Your task to perform on an android device: toggle show notifications on the lock screen Image 0: 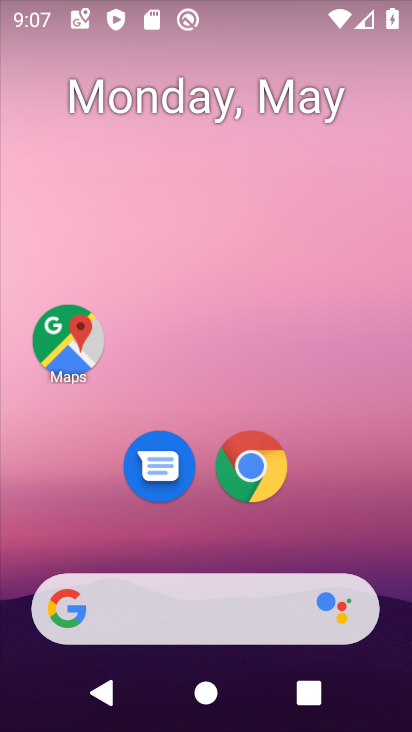
Step 0: drag from (248, 646) to (276, 114)
Your task to perform on an android device: toggle show notifications on the lock screen Image 1: 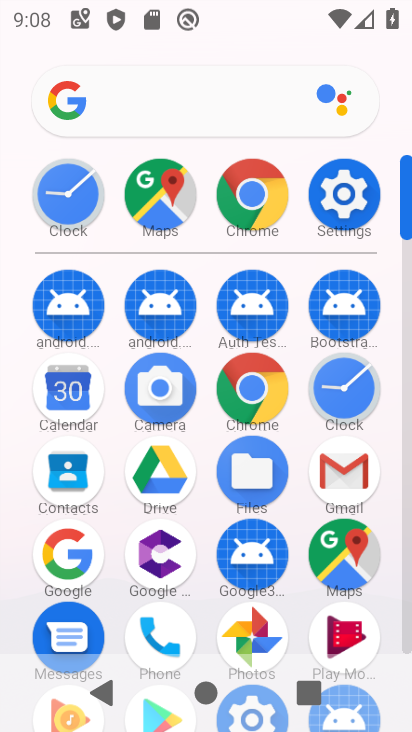
Step 1: click (336, 190)
Your task to perform on an android device: toggle show notifications on the lock screen Image 2: 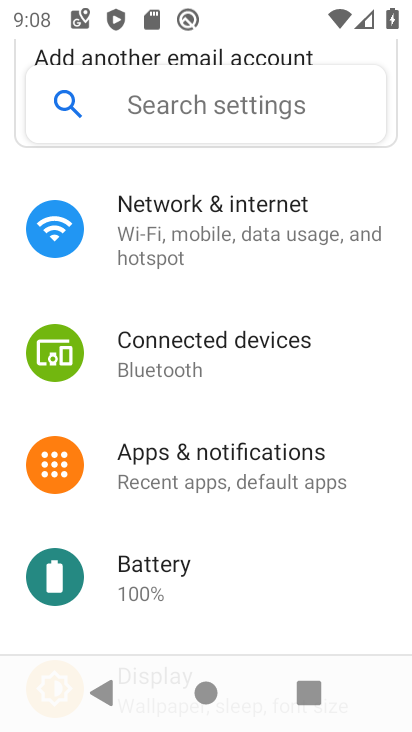
Step 2: click (158, 115)
Your task to perform on an android device: toggle show notifications on the lock screen Image 3: 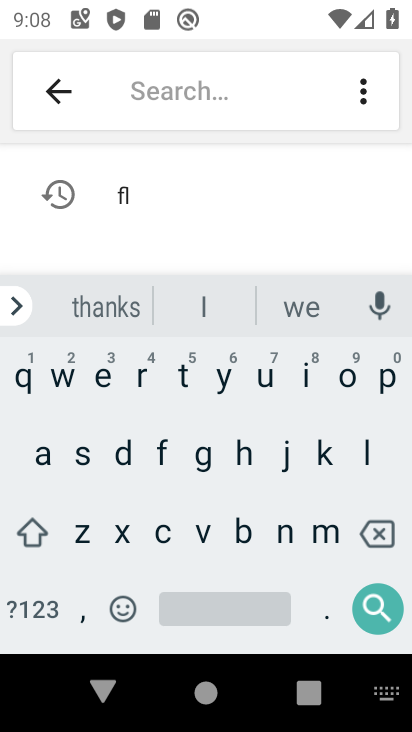
Step 3: click (288, 547)
Your task to perform on an android device: toggle show notifications on the lock screen Image 4: 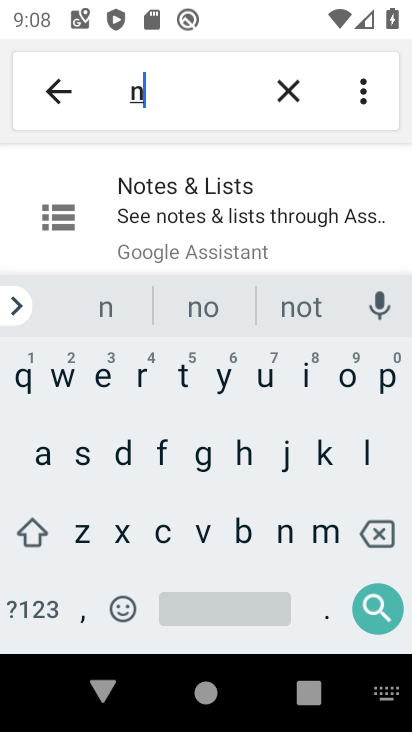
Step 4: click (344, 378)
Your task to perform on an android device: toggle show notifications on the lock screen Image 5: 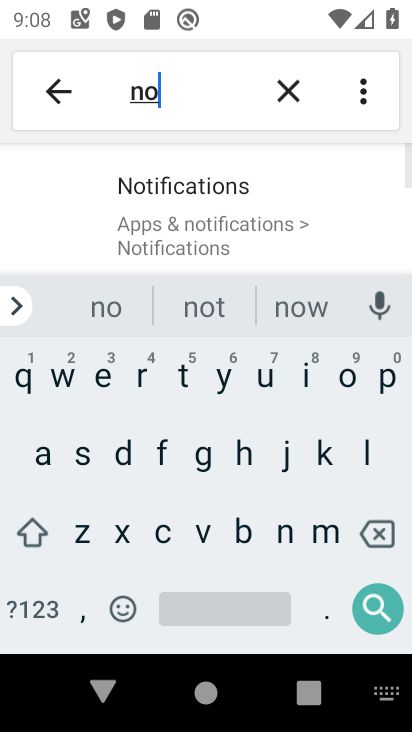
Step 5: click (196, 199)
Your task to perform on an android device: toggle show notifications on the lock screen Image 6: 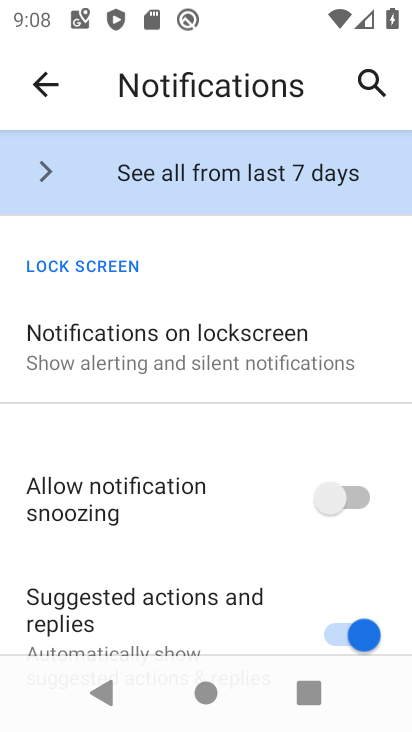
Step 6: click (126, 338)
Your task to perform on an android device: toggle show notifications on the lock screen Image 7: 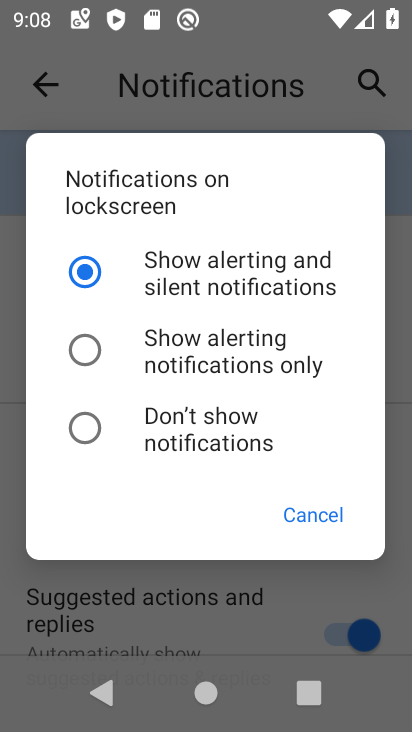
Step 7: task complete